Your task to perform on an android device: Open accessibility settings Image 0: 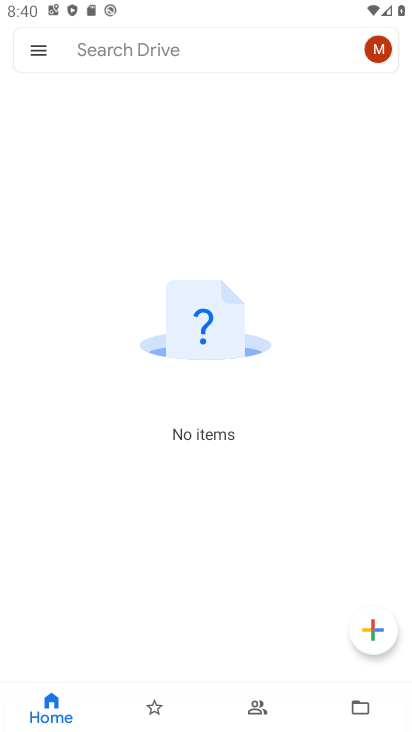
Step 0: press home button
Your task to perform on an android device: Open accessibility settings Image 1: 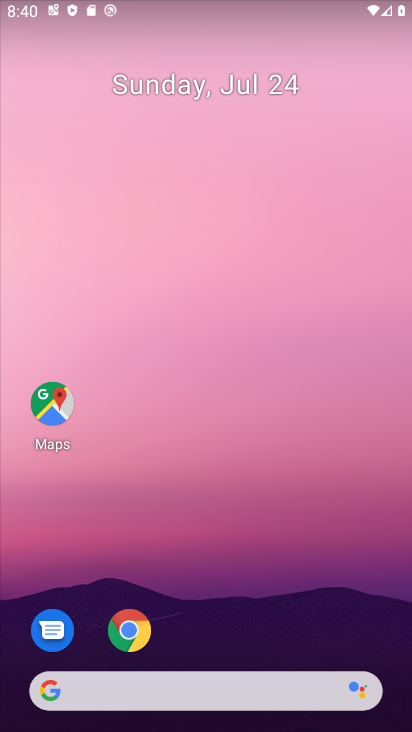
Step 1: drag from (232, 612) to (161, 80)
Your task to perform on an android device: Open accessibility settings Image 2: 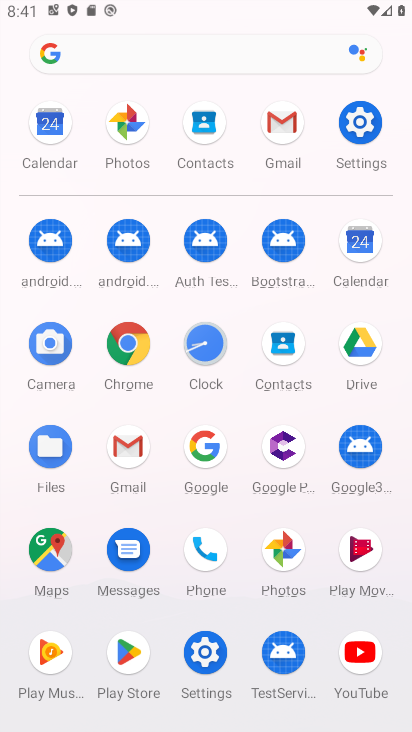
Step 2: click (355, 128)
Your task to perform on an android device: Open accessibility settings Image 3: 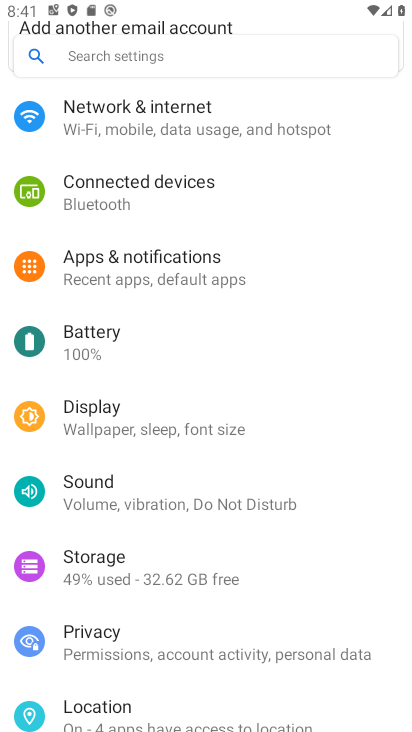
Step 3: drag from (189, 680) to (189, 208)
Your task to perform on an android device: Open accessibility settings Image 4: 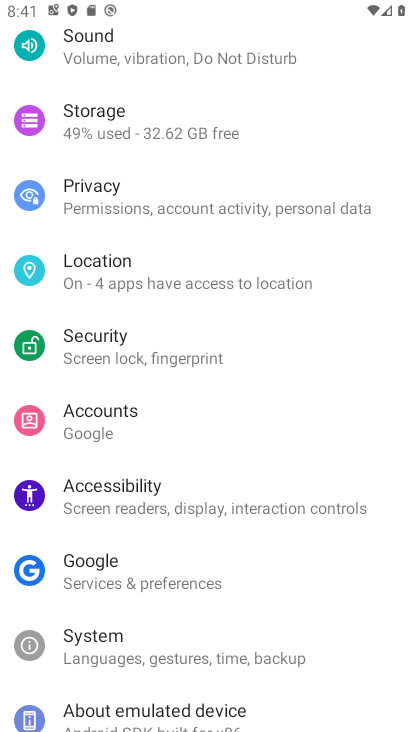
Step 4: click (146, 513)
Your task to perform on an android device: Open accessibility settings Image 5: 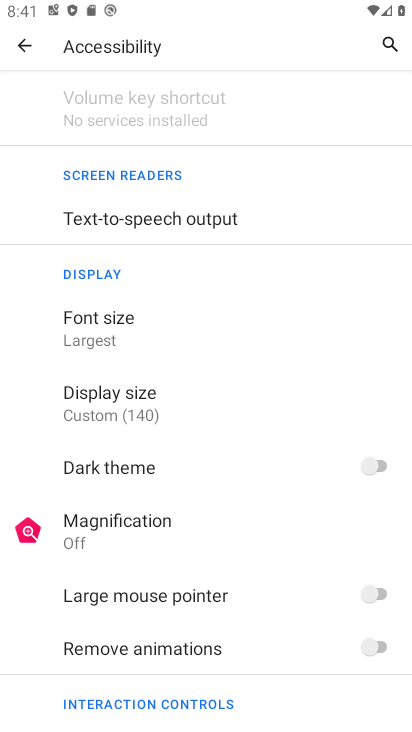
Step 5: task complete